Your task to perform on an android device: Go to Maps Image 0: 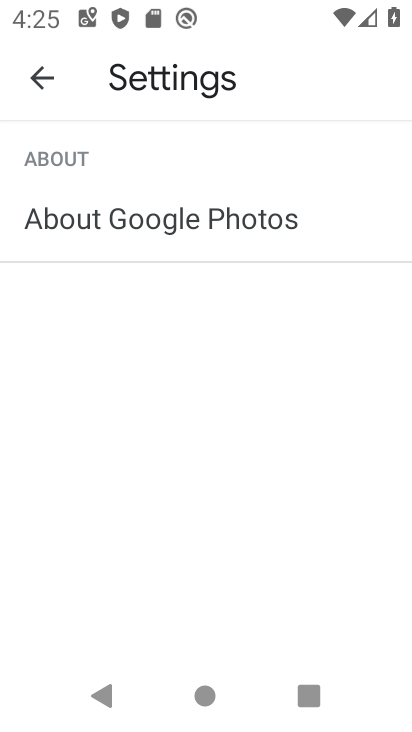
Step 0: press home button
Your task to perform on an android device: Go to Maps Image 1: 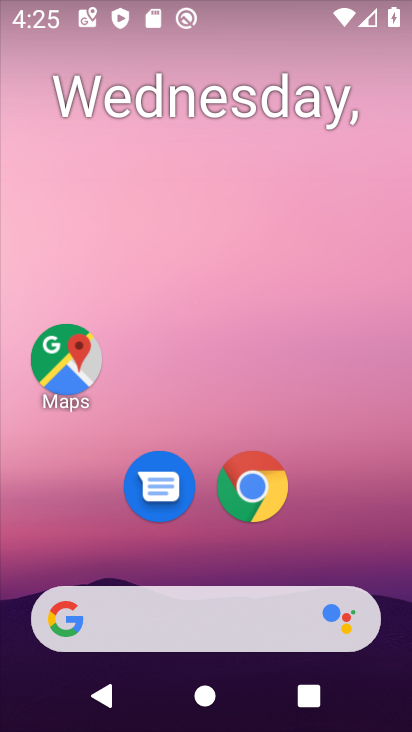
Step 1: drag from (279, 575) to (281, 91)
Your task to perform on an android device: Go to Maps Image 2: 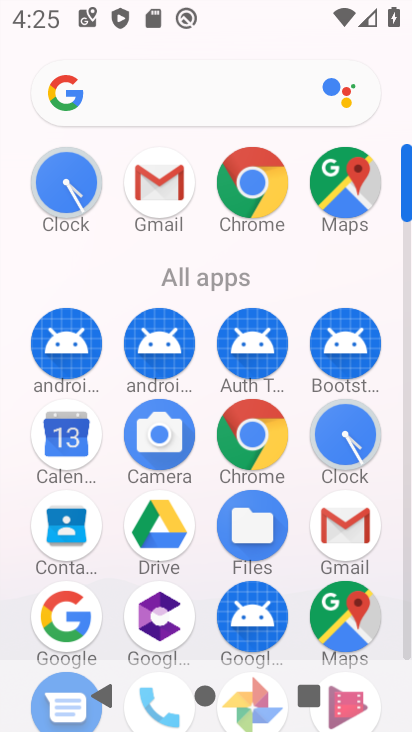
Step 2: click (347, 615)
Your task to perform on an android device: Go to Maps Image 3: 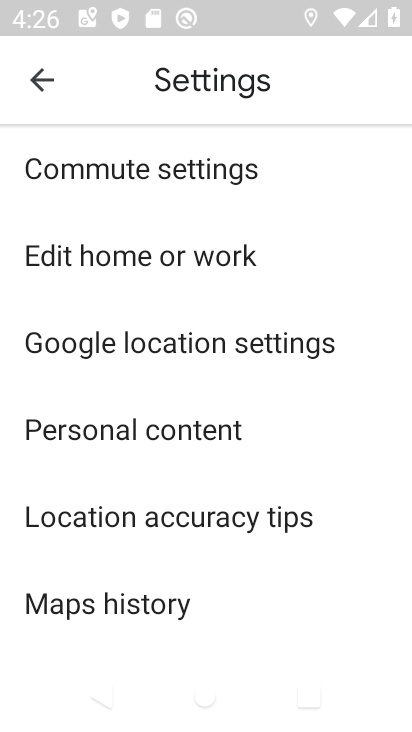
Step 3: click (40, 92)
Your task to perform on an android device: Go to Maps Image 4: 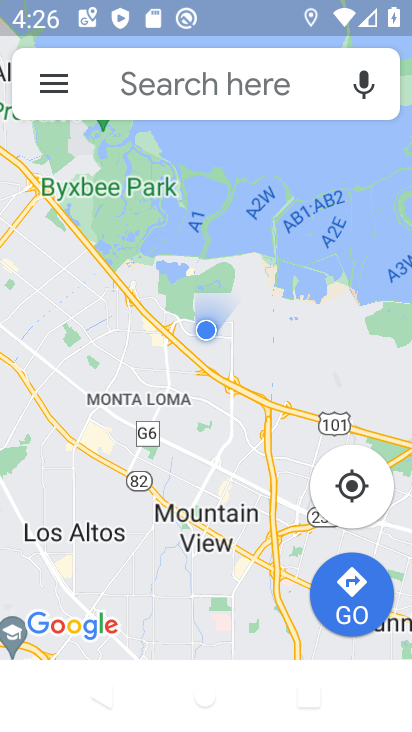
Step 4: task complete